Your task to perform on an android device: Show me popular videos on Youtube Image 0: 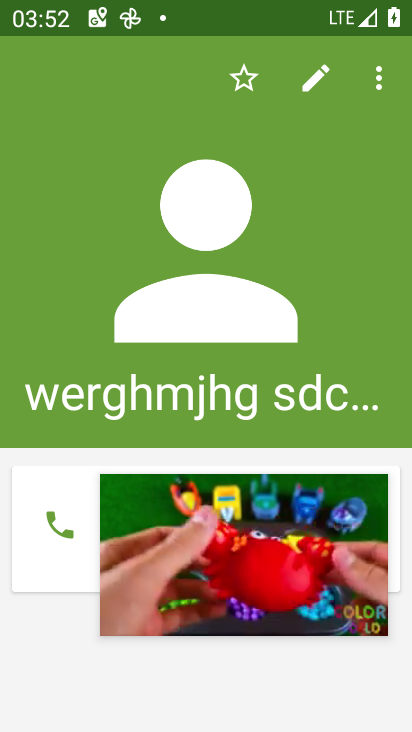
Step 0: press home button
Your task to perform on an android device: Show me popular videos on Youtube Image 1: 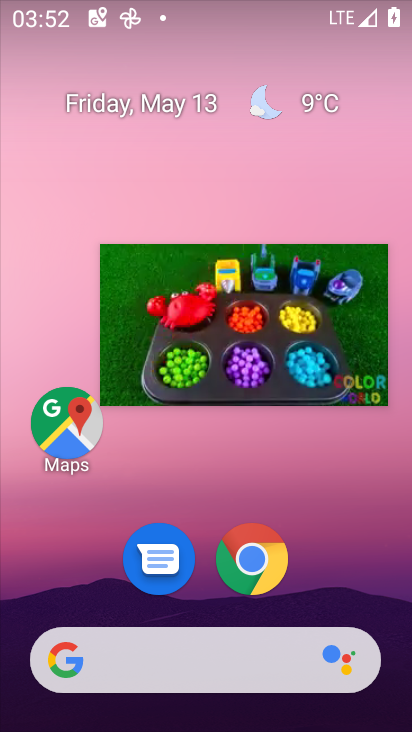
Step 1: drag from (401, 659) to (369, 294)
Your task to perform on an android device: Show me popular videos on Youtube Image 2: 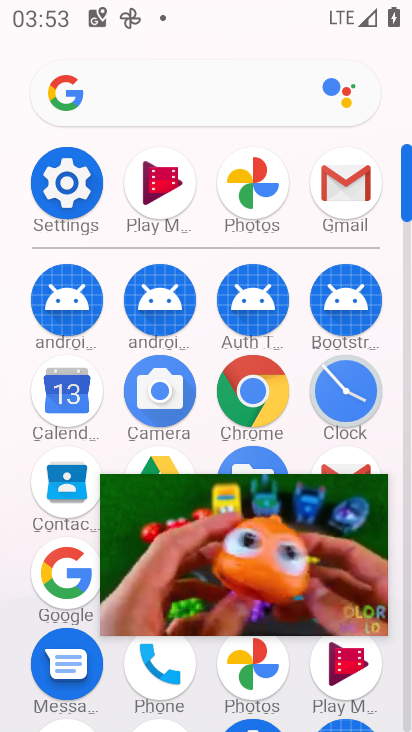
Step 2: drag from (210, 443) to (211, 192)
Your task to perform on an android device: Show me popular videos on Youtube Image 3: 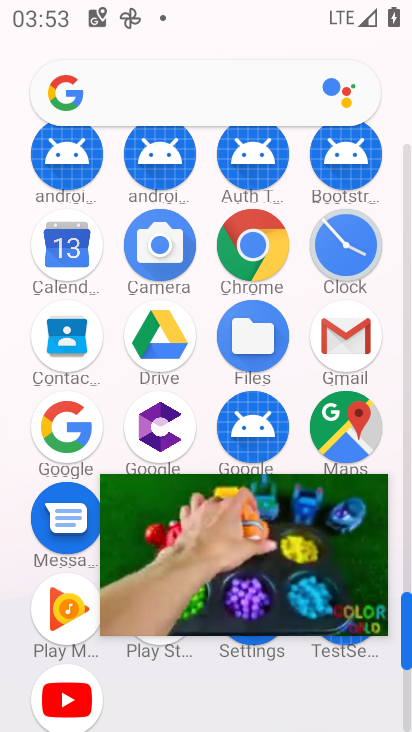
Step 3: click (51, 681)
Your task to perform on an android device: Show me popular videos on Youtube Image 4: 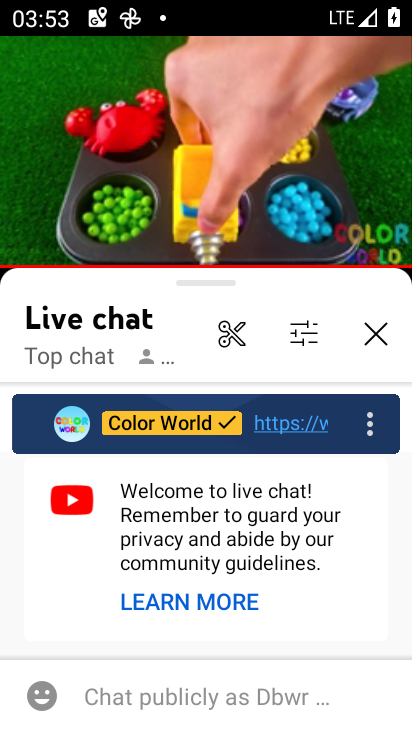
Step 4: task complete